Your task to perform on an android device: turn on the 24-hour format for clock Image 0: 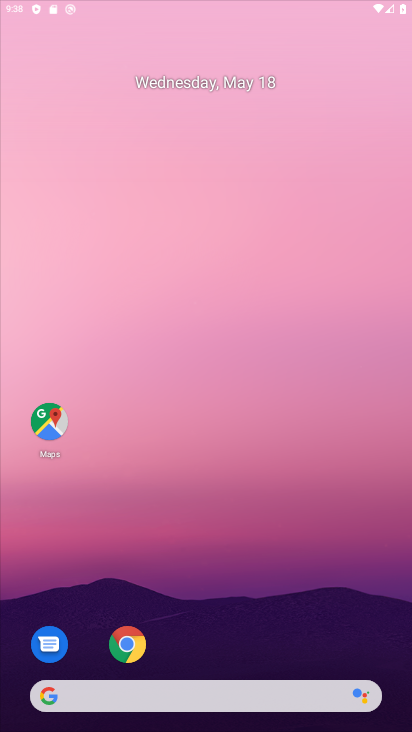
Step 0: drag from (268, 548) to (304, 220)
Your task to perform on an android device: turn on the 24-hour format for clock Image 1: 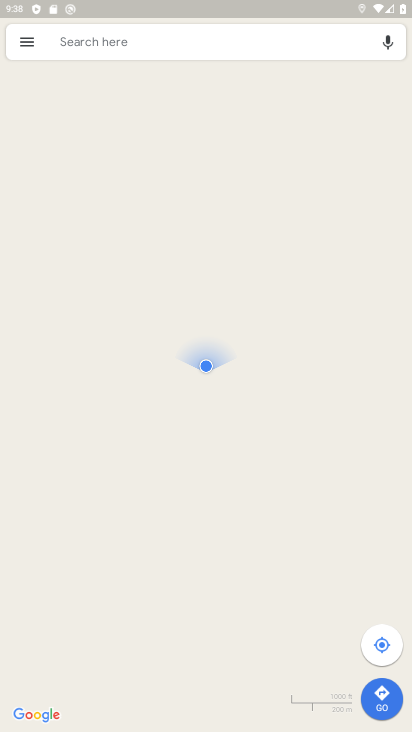
Step 1: press home button
Your task to perform on an android device: turn on the 24-hour format for clock Image 2: 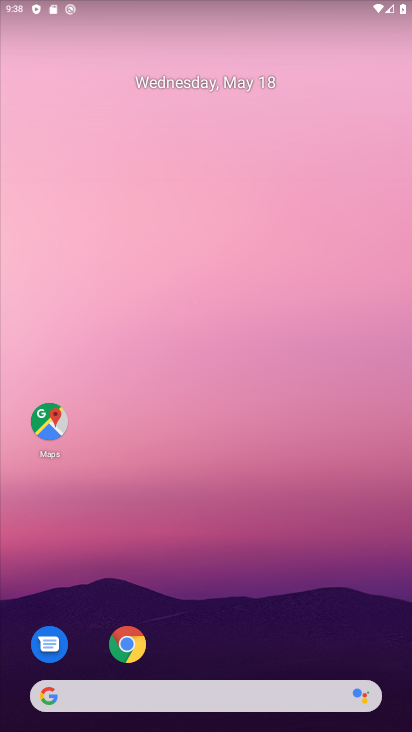
Step 2: drag from (214, 586) to (272, 199)
Your task to perform on an android device: turn on the 24-hour format for clock Image 3: 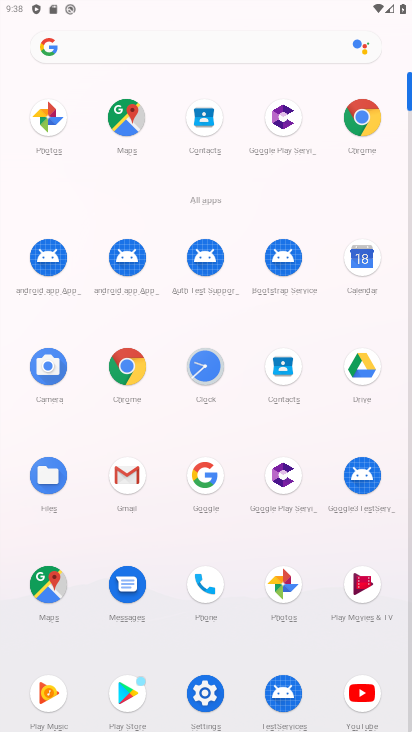
Step 3: click (212, 365)
Your task to perform on an android device: turn on the 24-hour format for clock Image 4: 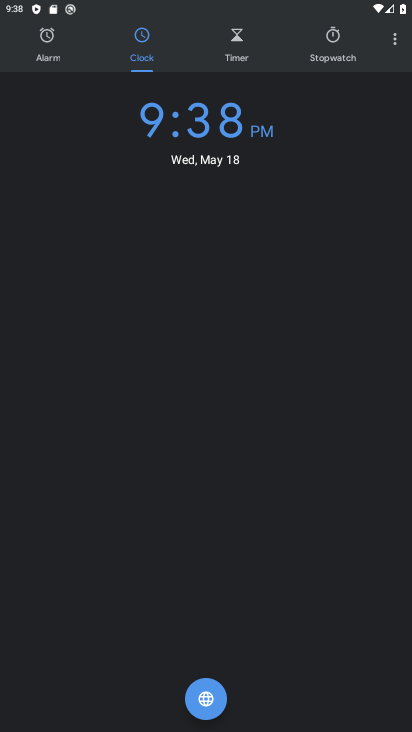
Step 4: click (393, 34)
Your task to perform on an android device: turn on the 24-hour format for clock Image 5: 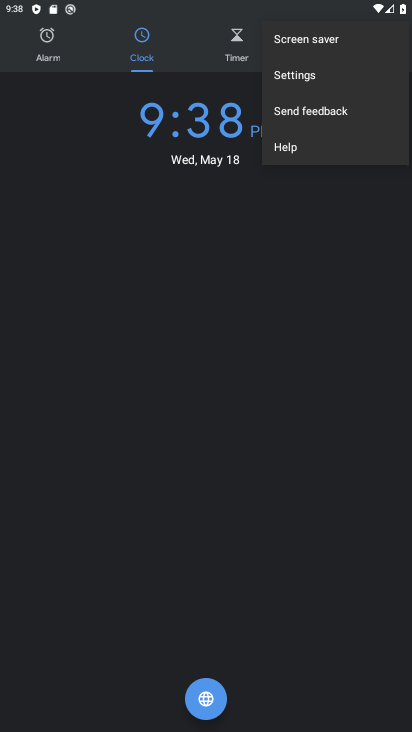
Step 5: click (324, 77)
Your task to perform on an android device: turn on the 24-hour format for clock Image 6: 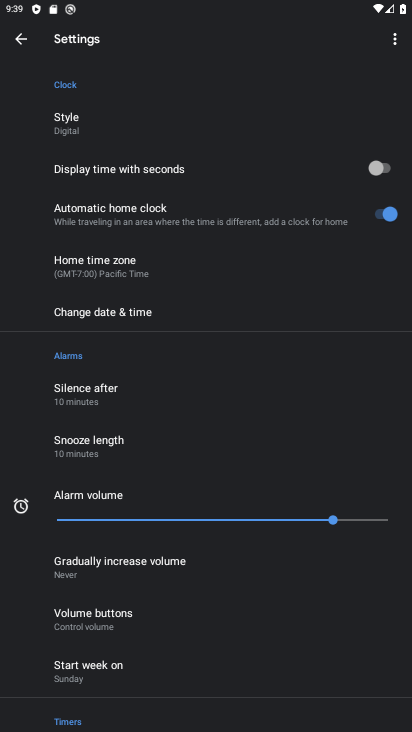
Step 6: drag from (195, 299) to (165, 447)
Your task to perform on an android device: turn on the 24-hour format for clock Image 7: 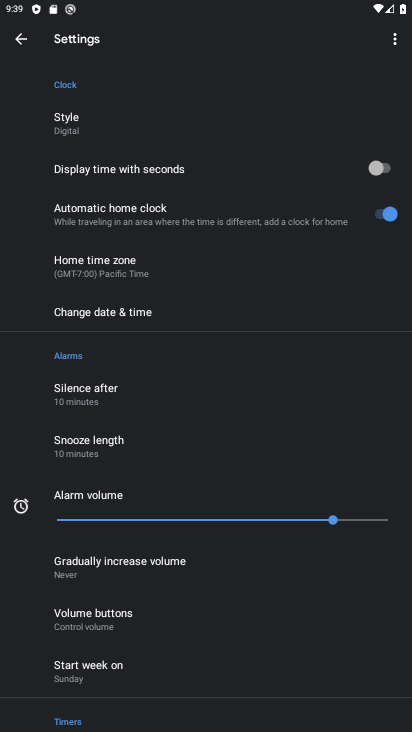
Step 7: click (121, 312)
Your task to perform on an android device: turn on the 24-hour format for clock Image 8: 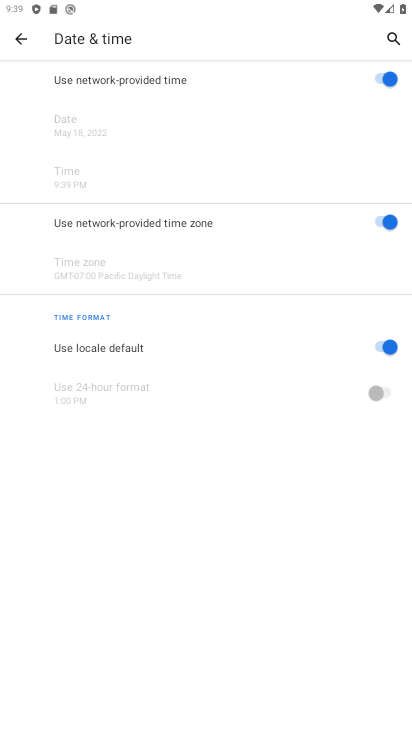
Step 8: click (335, 343)
Your task to perform on an android device: turn on the 24-hour format for clock Image 9: 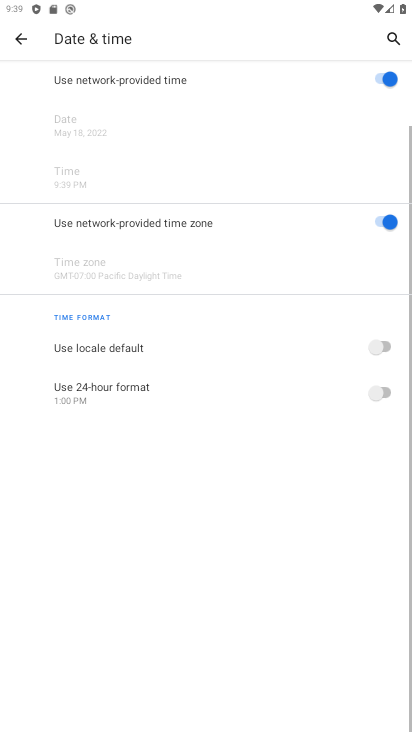
Step 9: click (392, 376)
Your task to perform on an android device: turn on the 24-hour format for clock Image 10: 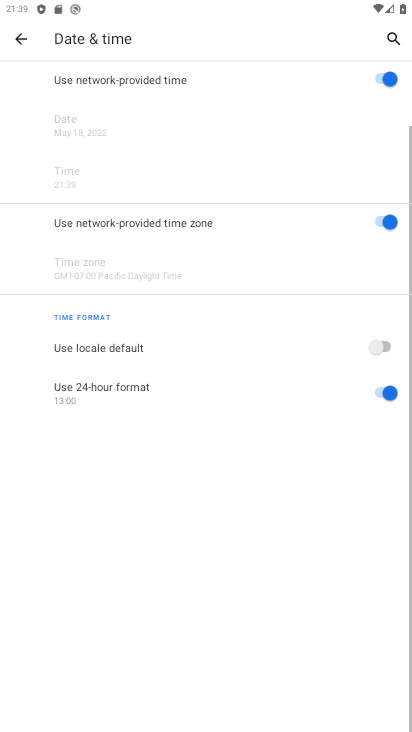
Step 10: task complete